Your task to perform on an android device: change the clock display to analog Image 0: 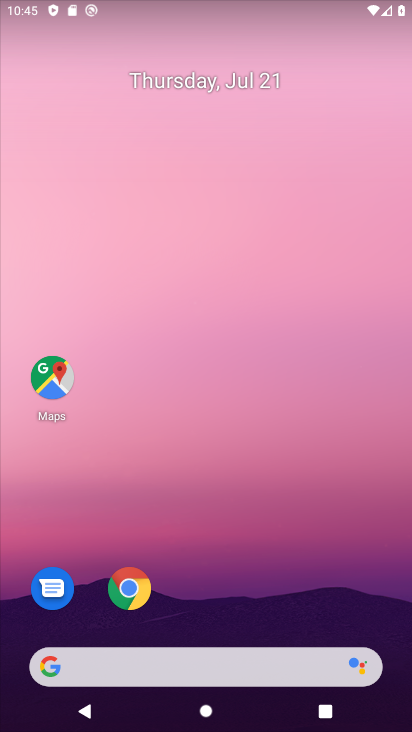
Step 0: drag from (254, 510) to (310, 1)
Your task to perform on an android device: change the clock display to analog Image 1: 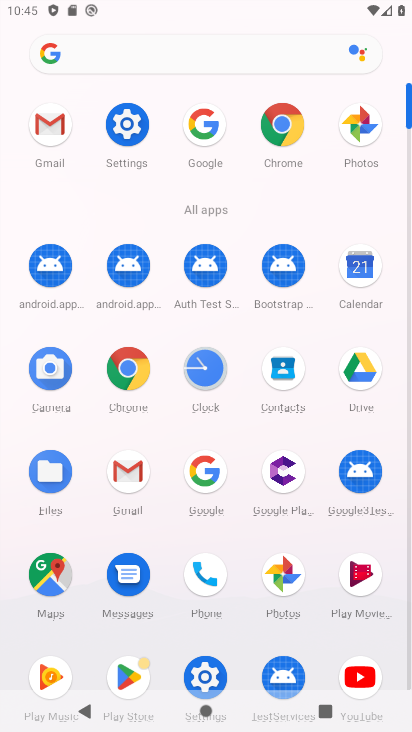
Step 1: click (197, 366)
Your task to perform on an android device: change the clock display to analog Image 2: 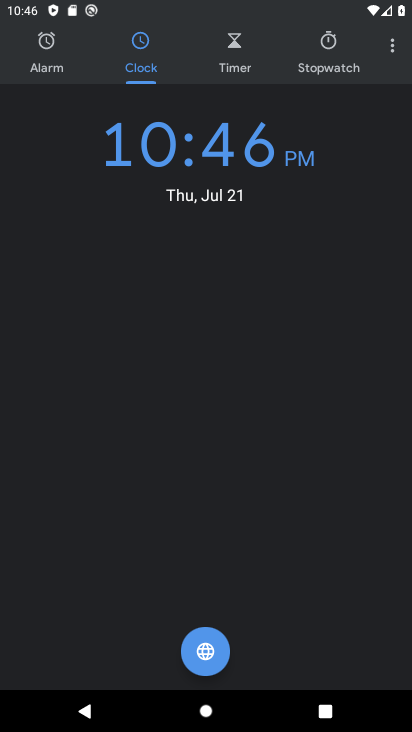
Step 2: click (404, 43)
Your task to perform on an android device: change the clock display to analog Image 3: 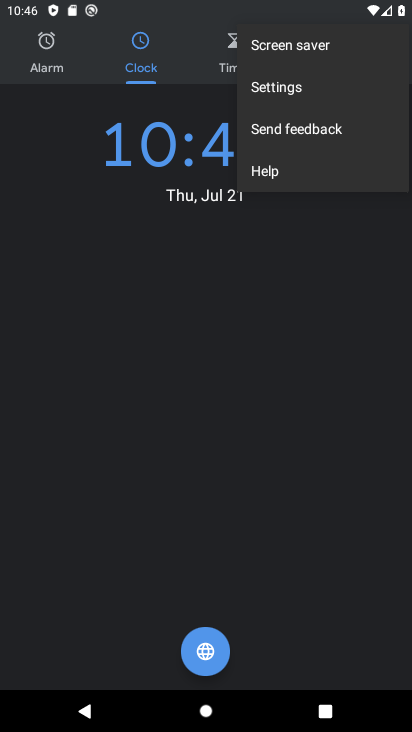
Step 3: click (288, 99)
Your task to perform on an android device: change the clock display to analog Image 4: 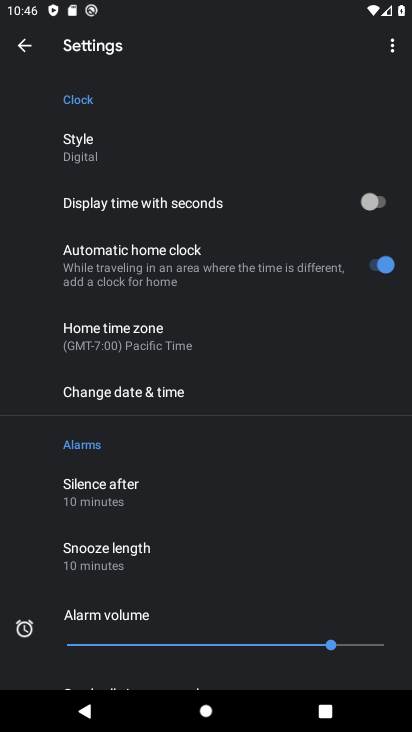
Step 4: click (84, 138)
Your task to perform on an android device: change the clock display to analog Image 5: 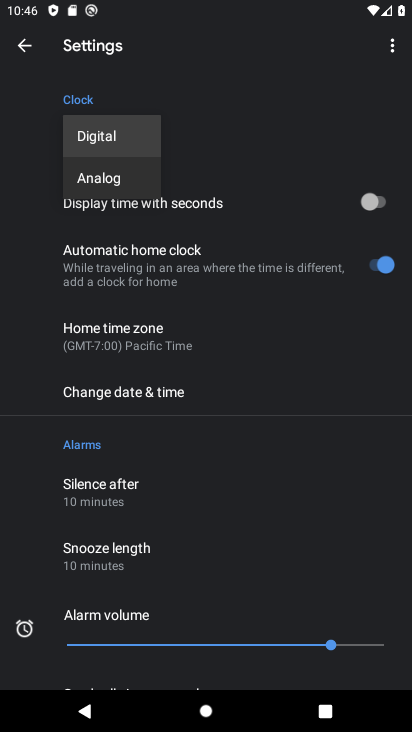
Step 5: click (109, 178)
Your task to perform on an android device: change the clock display to analog Image 6: 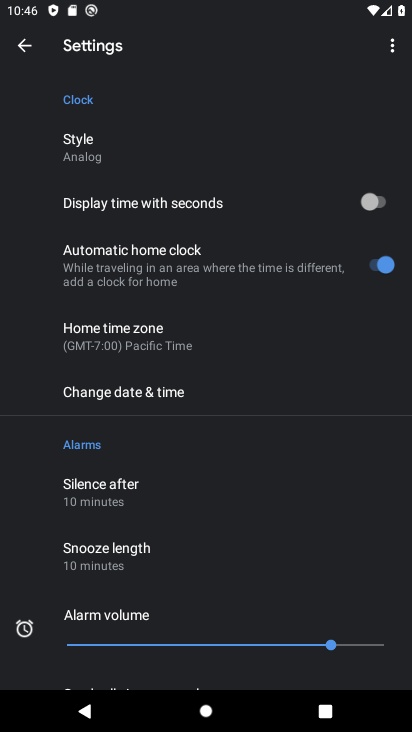
Step 6: task complete